Your task to perform on an android device: Show me recent news Image 0: 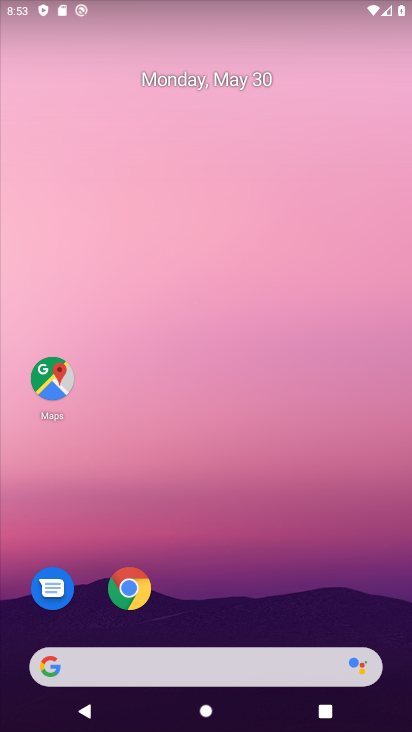
Step 0: drag from (358, 585) to (346, 163)
Your task to perform on an android device: Show me recent news Image 1: 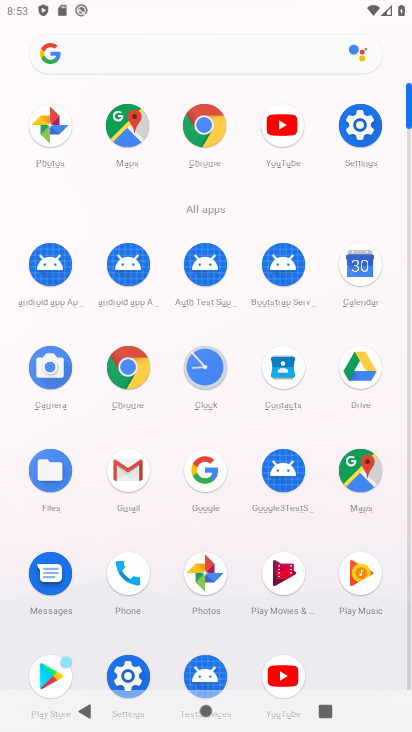
Step 1: click (142, 378)
Your task to perform on an android device: Show me recent news Image 2: 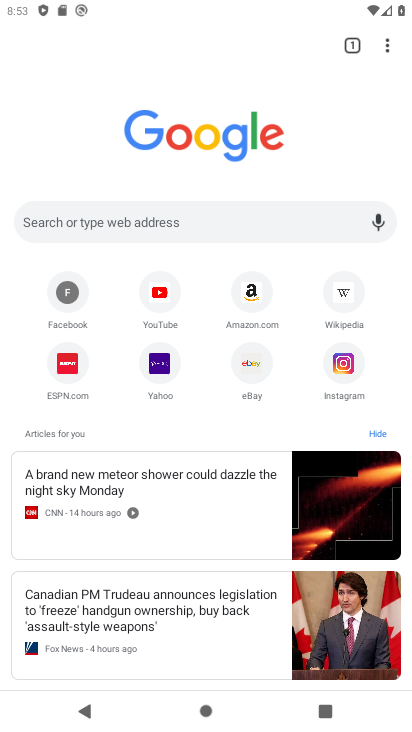
Step 2: click (259, 215)
Your task to perform on an android device: Show me recent news Image 3: 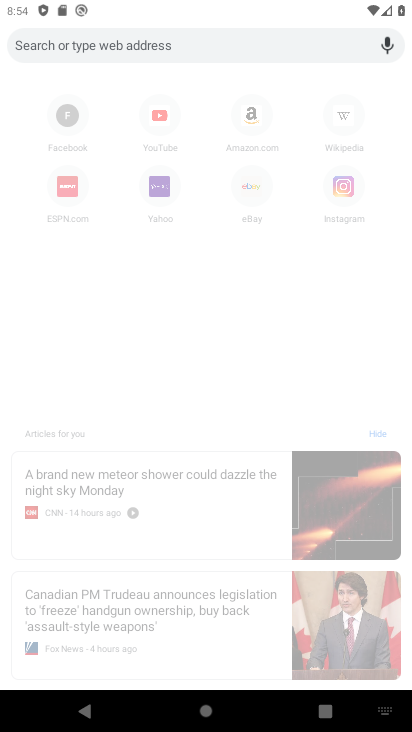
Step 3: click (129, 46)
Your task to perform on an android device: Show me recent news Image 4: 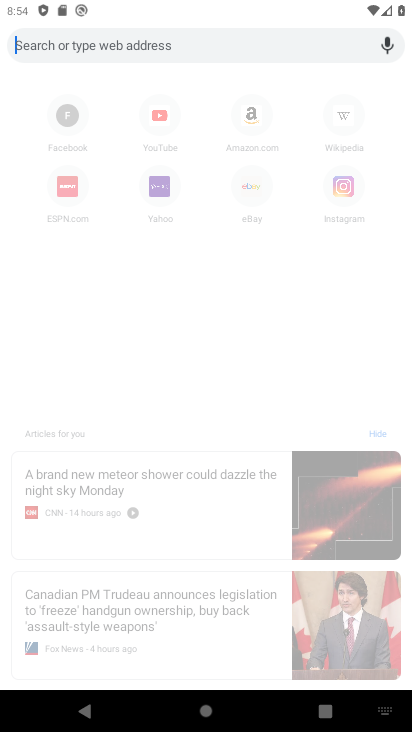
Step 4: type "recent news "
Your task to perform on an android device: Show me recent news Image 5: 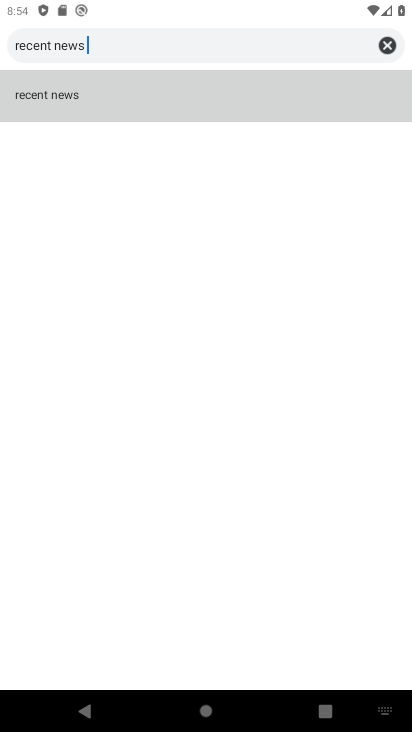
Step 5: click (77, 87)
Your task to perform on an android device: Show me recent news Image 6: 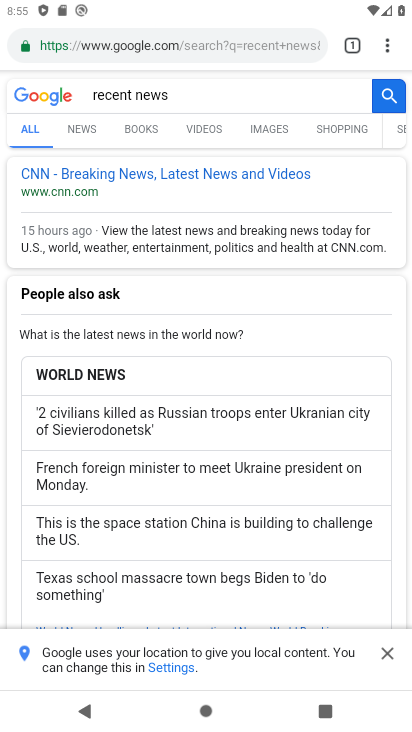
Step 6: task complete